Your task to perform on an android device: Show me recent news Image 0: 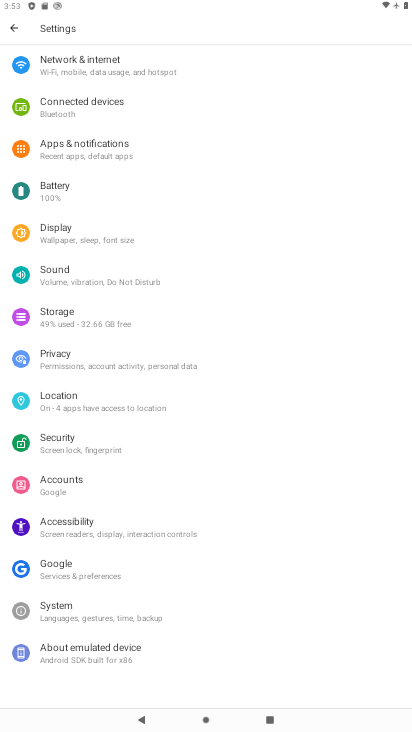
Step 0: press home button
Your task to perform on an android device: Show me recent news Image 1: 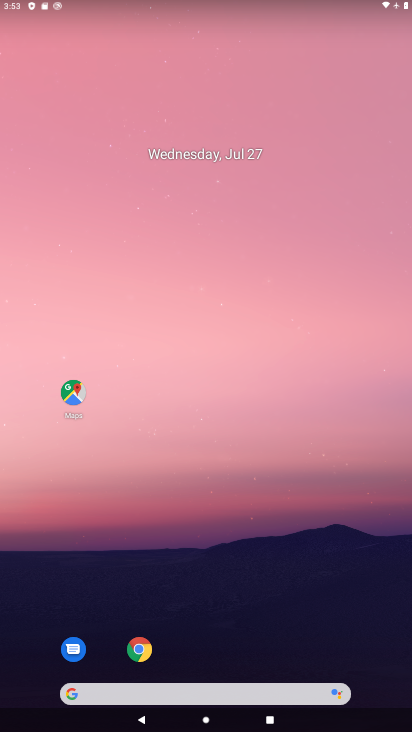
Step 1: click (137, 651)
Your task to perform on an android device: Show me recent news Image 2: 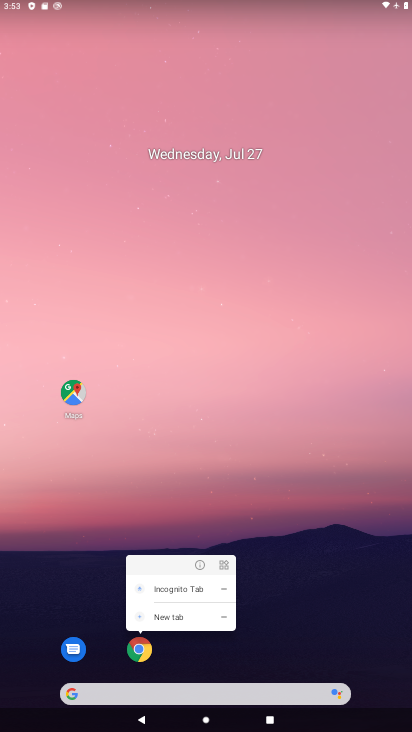
Step 2: click (140, 653)
Your task to perform on an android device: Show me recent news Image 3: 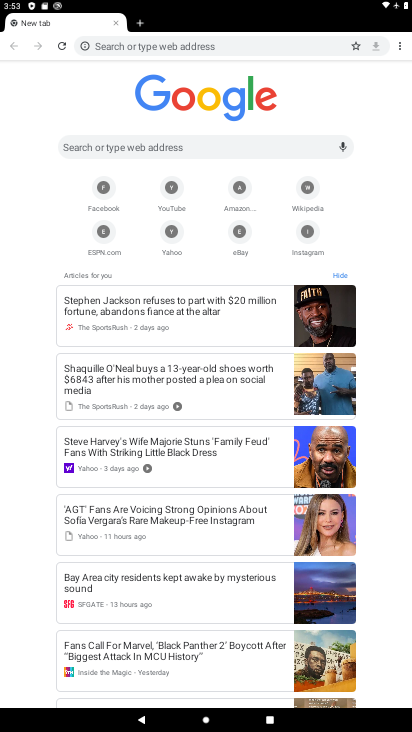
Step 3: click (223, 40)
Your task to perform on an android device: Show me recent news Image 4: 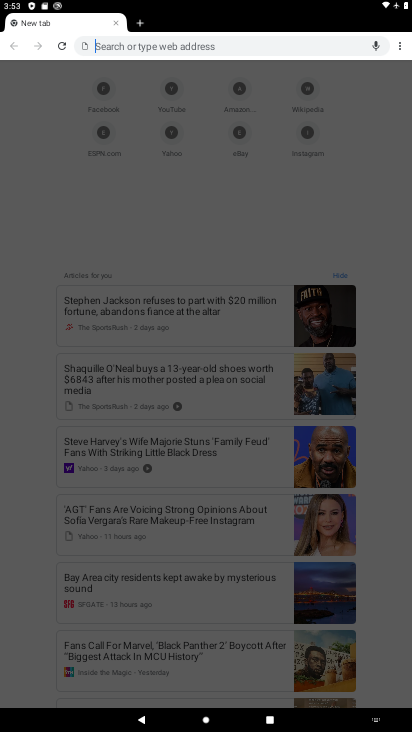
Step 4: type "Show me recent news"
Your task to perform on an android device: Show me recent news Image 5: 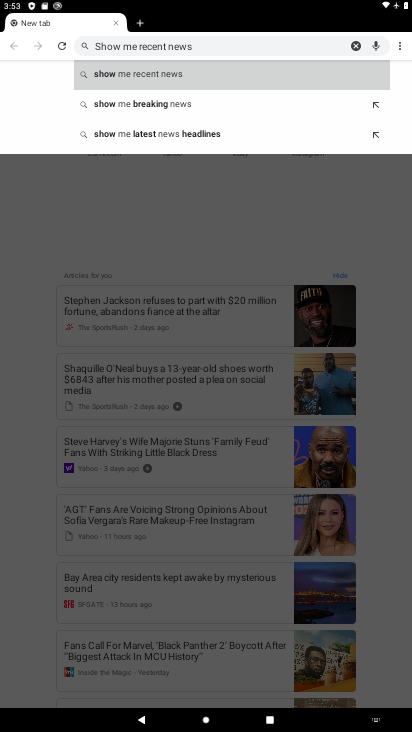
Step 5: click (195, 74)
Your task to perform on an android device: Show me recent news Image 6: 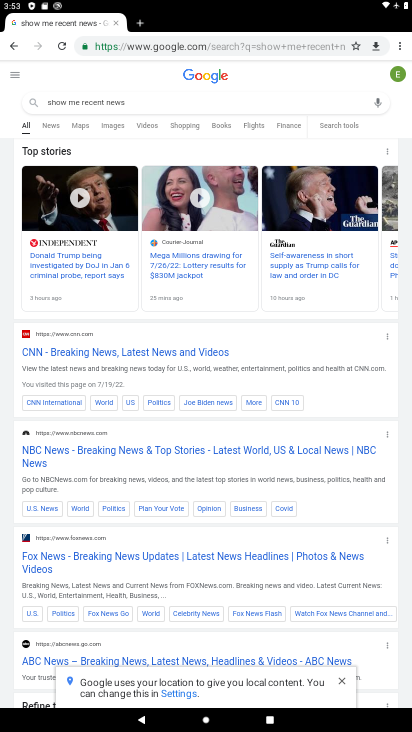
Step 6: task complete